Your task to perform on an android device: Open Amazon Image 0: 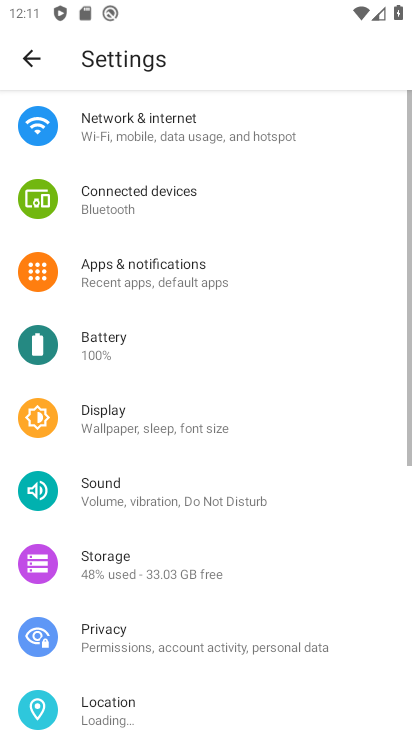
Step 0: drag from (222, 658) to (176, 78)
Your task to perform on an android device: Open Amazon Image 1: 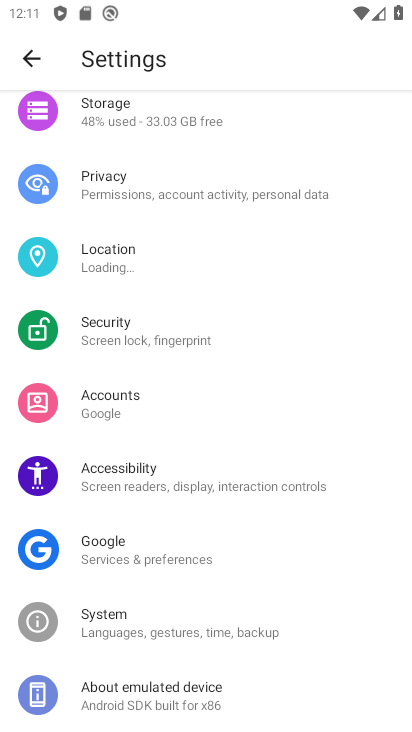
Step 1: press home button
Your task to perform on an android device: Open Amazon Image 2: 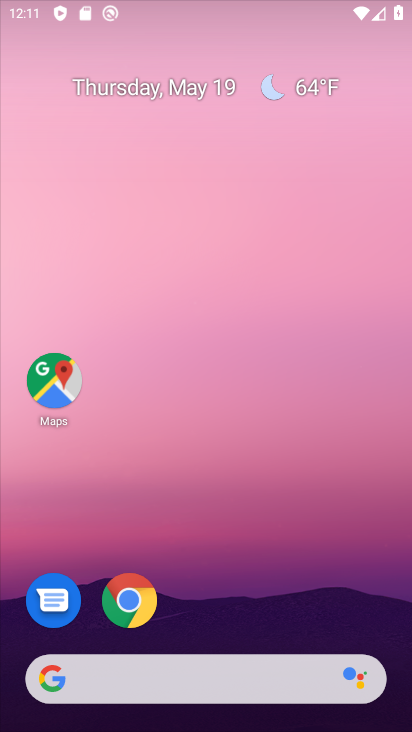
Step 2: drag from (205, 651) to (146, 67)
Your task to perform on an android device: Open Amazon Image 3: 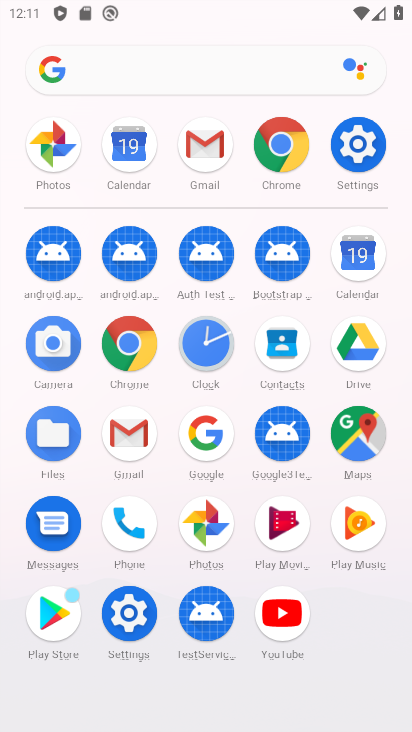
Step 3: click (284, 150)
Your task to perform on an android device: Open Amazon Image 4: 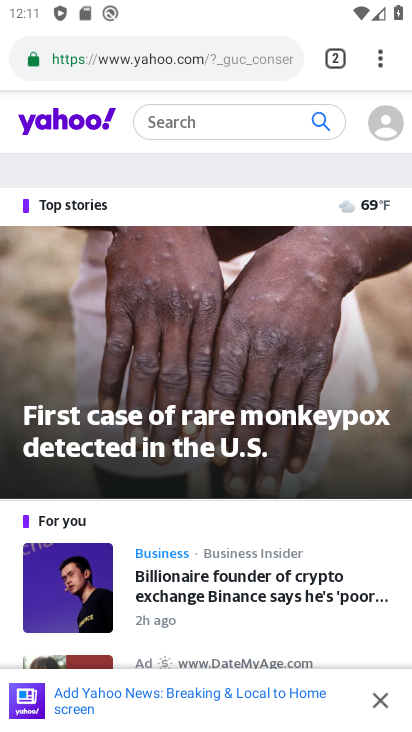
Step 4: click (331, 59)
Your task to perform on an android device: Open Amazon Image 5: 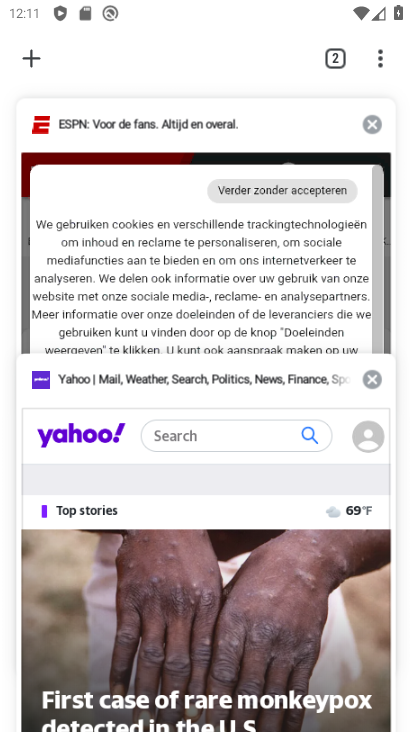
Step 5: click (21, 58)
Your task to perform on an android device: Open Amazon Image 6: 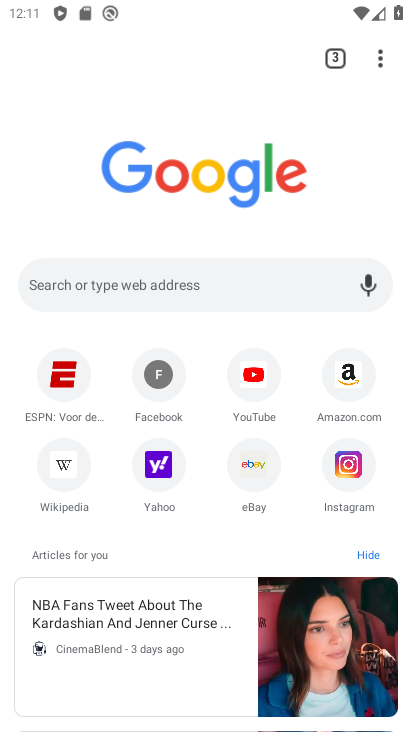
Step 6: click (345, 369)
Your task to perform on an android device: Open Amazon Image 7: 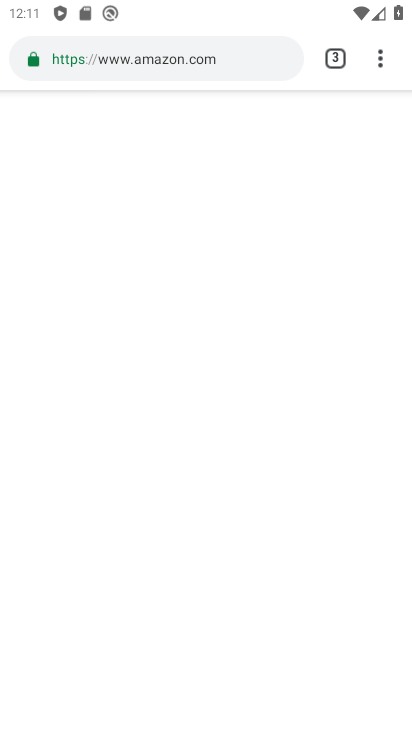
Step 7: task complete